Your task to perform on an android device: turn on bluetooth scan Image 0: 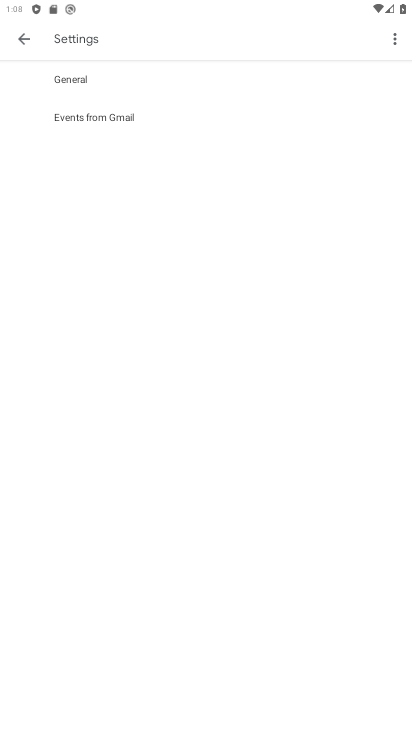
Step 0: press home button
Your task to perform on an android device: turn on bluetooth scan Image 1: 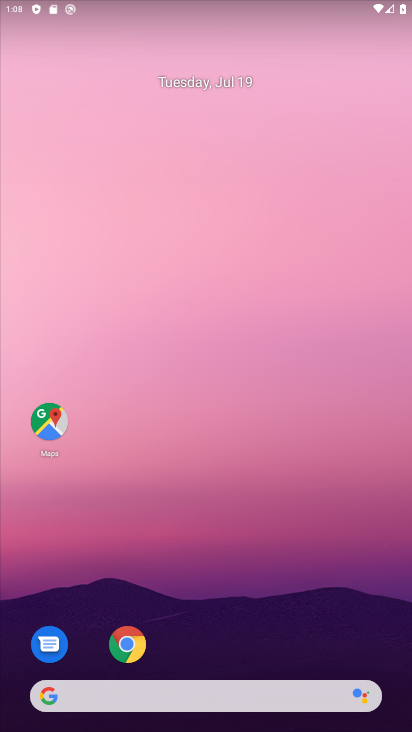
Step 1: drag from (367, 472) to (343, 120)
Your task to perform on an android device: turn on bluetooth scan Image 2: 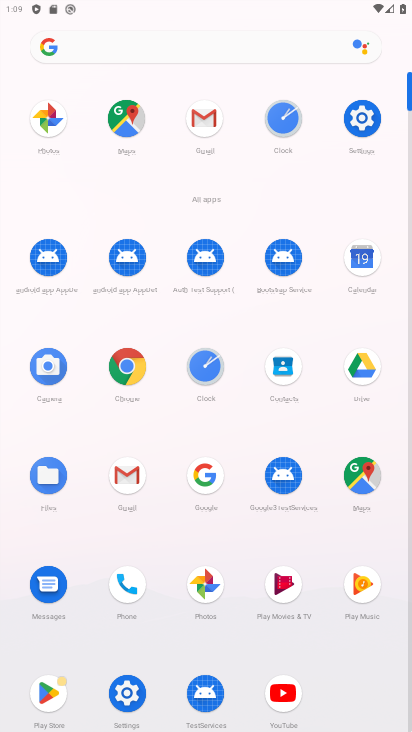
Step 2: click (357, 129)
Your task to perform on an android device: turn on bluetooth scan Image 3: 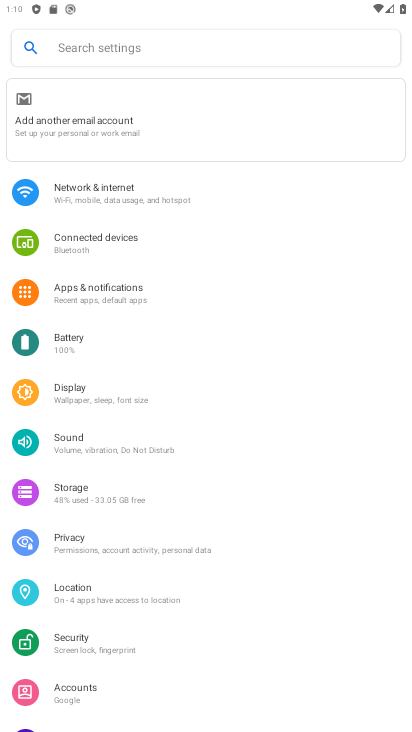
Step 3: click (83, 590)
Your task to perform on an android device: turn on bluetooth scan Image 4: 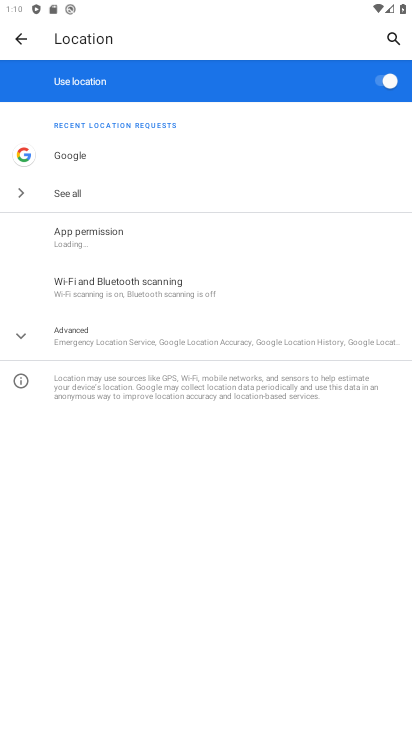
Step 4: click (122, 285)
Your task to perform on an android device: turn on bluetooth scan Image 5: 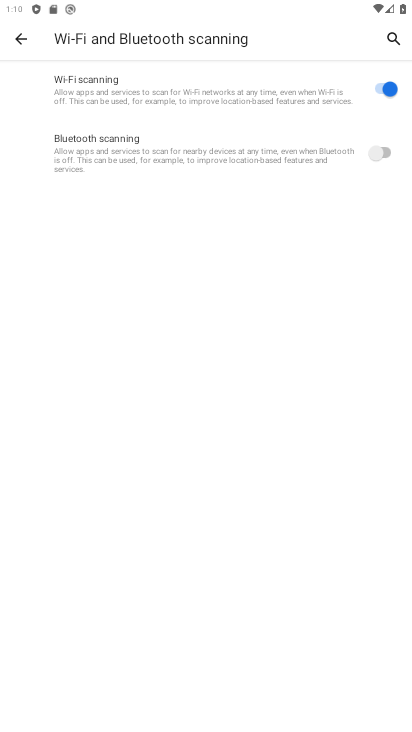
Step 5: click (386, 149)
Your task to perform on an android device: turn on bluetooth scan Image 6: 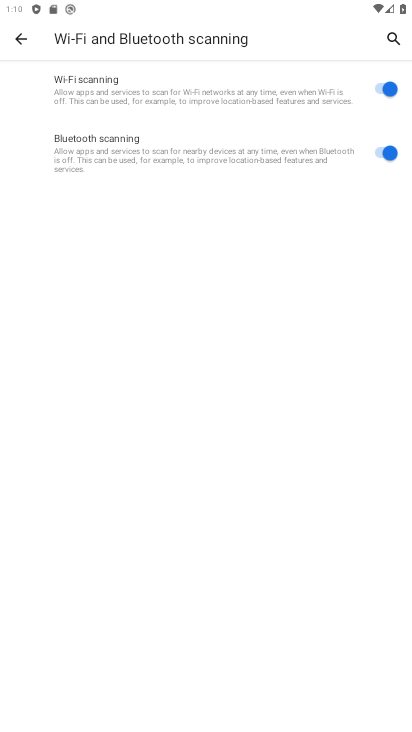
Step 6: task complete